Your task to perform on an android device: change your default location settings in chrome Image 0: 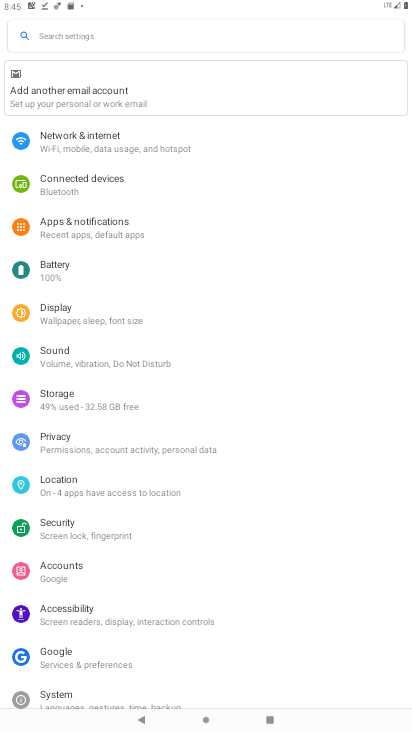
Step 0: press home button
Your task to perform on an android device: change your default location settings in chrome Image 1: 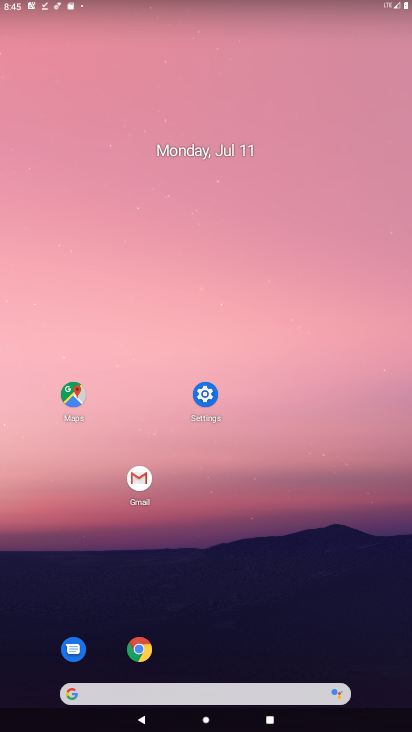
Step 1: click (138, 648)
Your task to perform on an android device: change your default location settings in chrome Image 2: 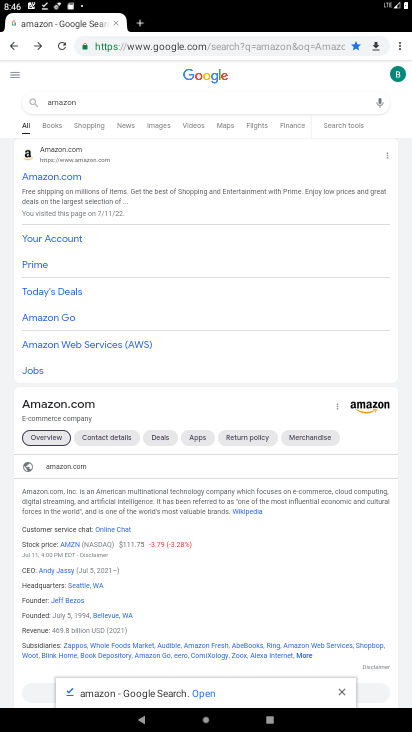
Step 2: click (399, 46)
Your task to perform on an android device: change your default location settings in chrome Image 3: 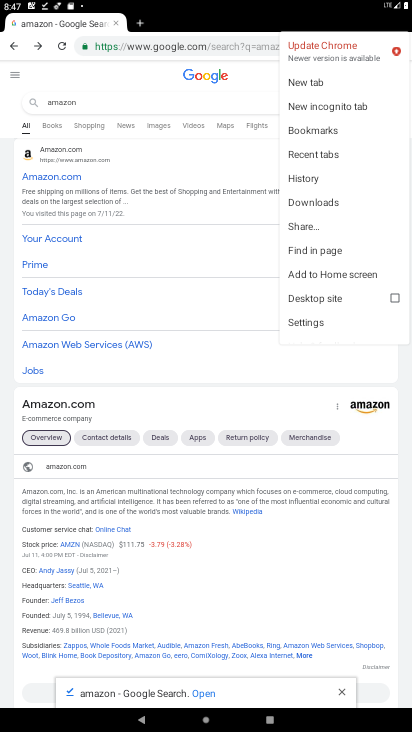
Step 3: click (297, 323)
Your task to perform on an android device: change your default location settings in chrome Image 4: 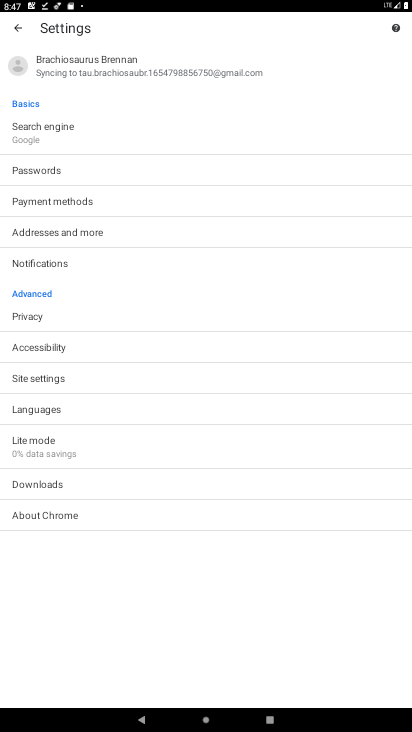
Step 4: click (41, 374)
Your task to perform on an android device: change your default location settings in chrome Image 5: 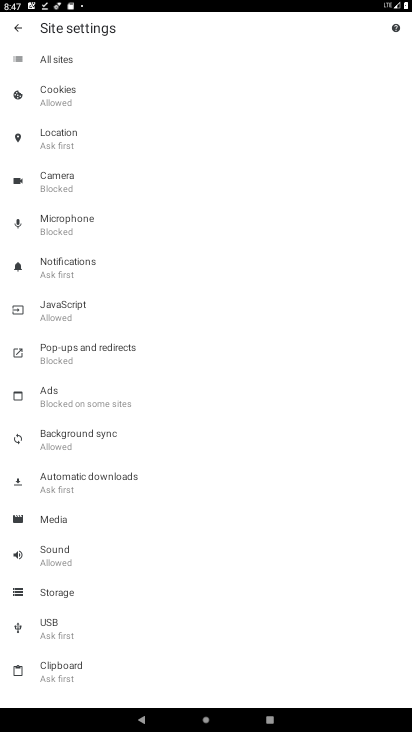
Step 5: click (62, 143)
Your task to perform on an android device: change your default location settings in chrome Image 6: 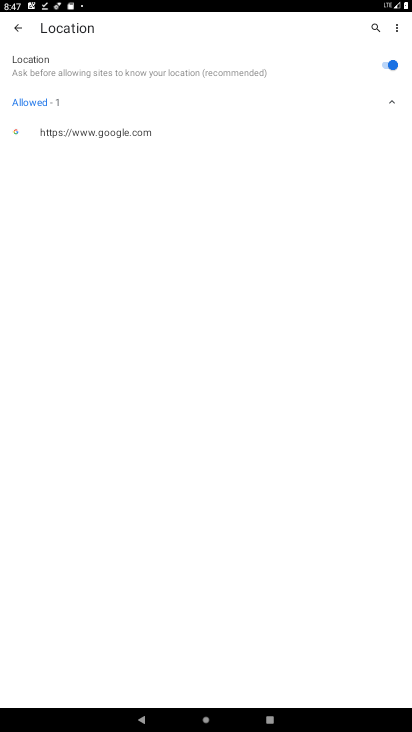
Step 6: click (381, 66)
Your task to perform on an android device: change your default location settings in chrome Image 7: 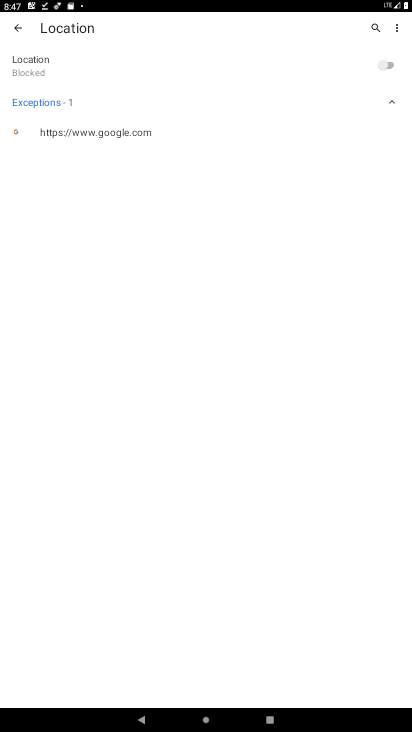
Step 7: task complete